Your task to perform on an android device: set the timer Image 0: 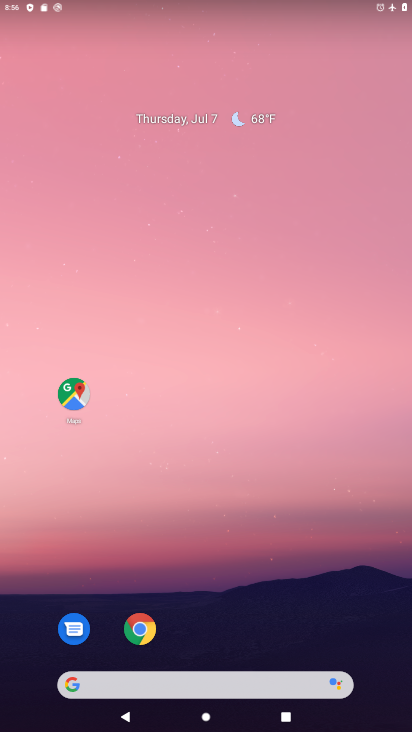
Step 0: drag from (209, 640) to (239, 121)
Your task to perform on an android device: set the timer Image 1: 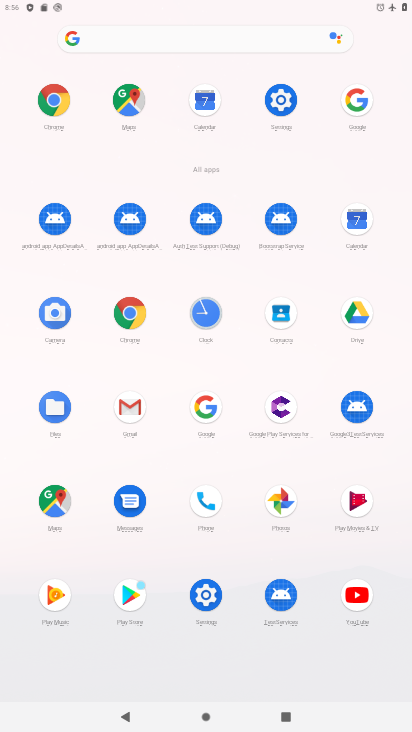
Step 1: click (209, 309)
Your task to perform on an android device: set the timer Image 2: 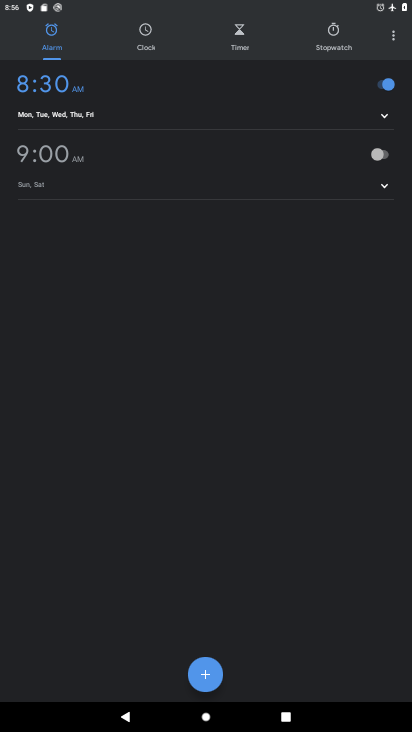
Step 2: click (239, 30)
Your task to perform on an android device: set the timer Image 3: 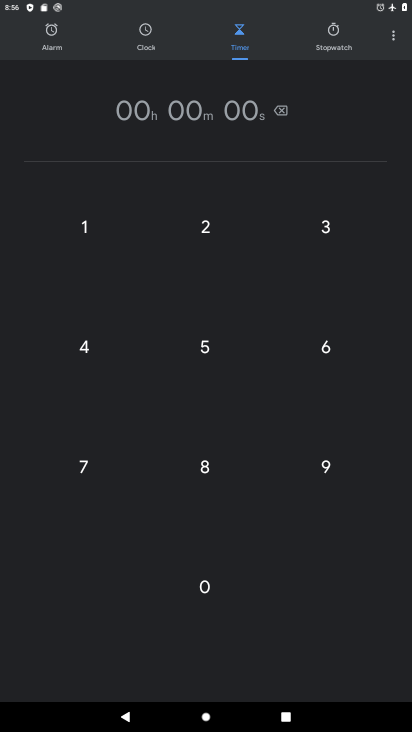
Step 3: click (205, 334)
Your task to perform on an android device: set the timer Image 4: 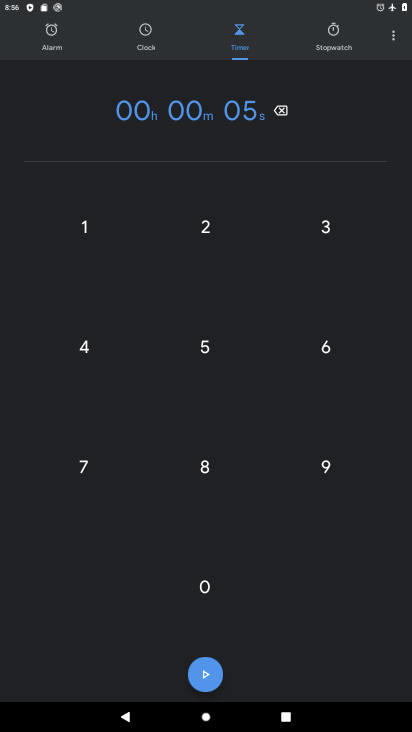
Step 4: click (205, 334)
Your task to perform on an android device: set the timer Image 5: 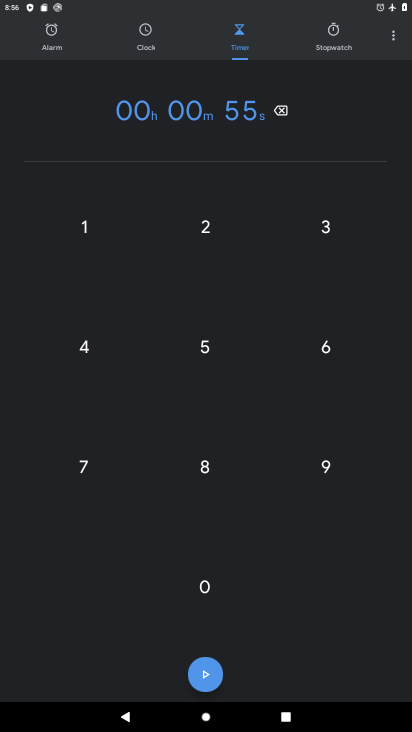
Step 5: click (203, 335)
Your task to perform on an android device: set the timer Image 6: 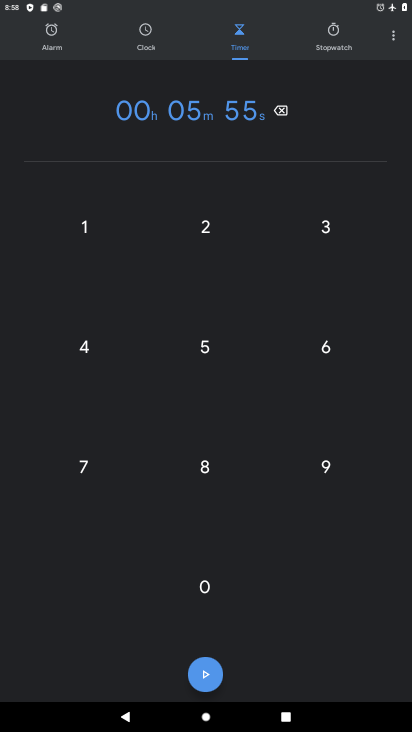
Step 6: task complete